Your task to perform on an android device: Do I have any events tomorrow? Image 0: 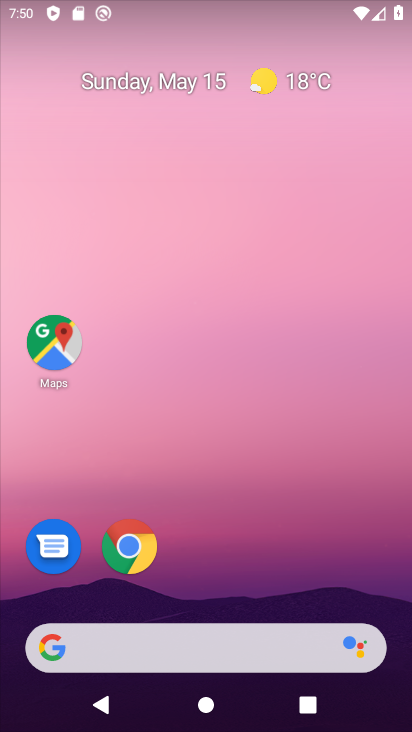
Step 0: drag from (252, 553) to (315, 170)
Your task to perform on an android device: Do I have any events tomorrow? Image 1: 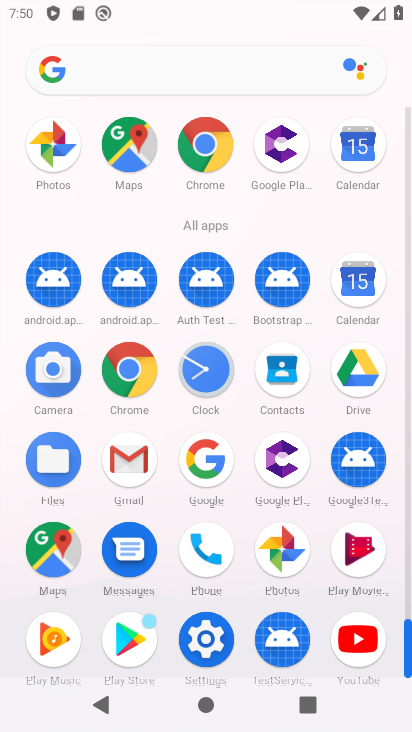
Step 1: click (354, 275)
Your task to perform on an android device: Do I have any events tomorrow? Image 2: 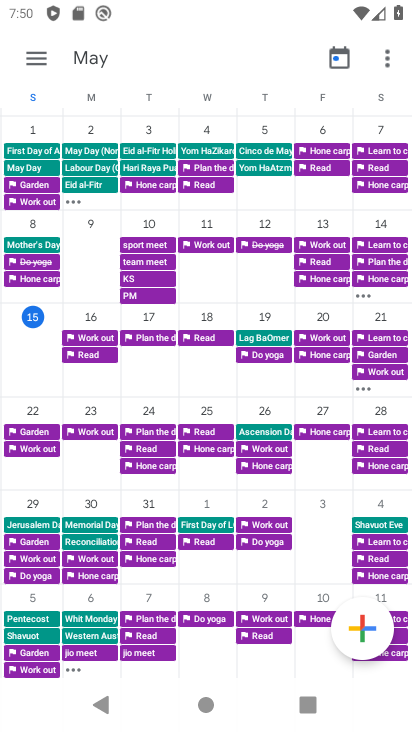
Step 2: click (24, 55)
Your task to perform on an android device: Do I have any events tomorrow? Image 3: 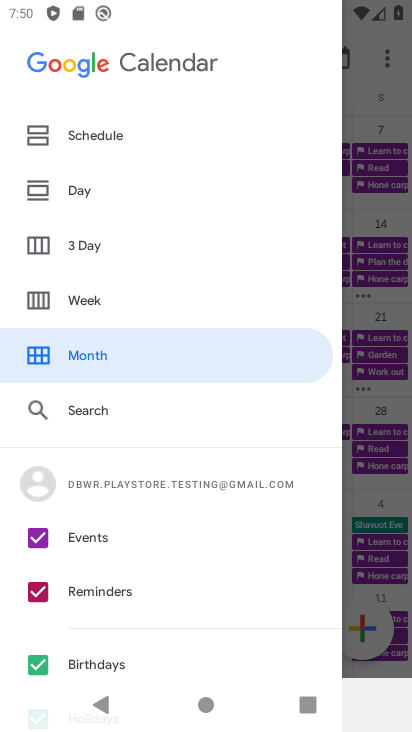
Step 3: click (121, 353)
Your task to perform on an android device: Do I have any events tomorrow? Image 4: 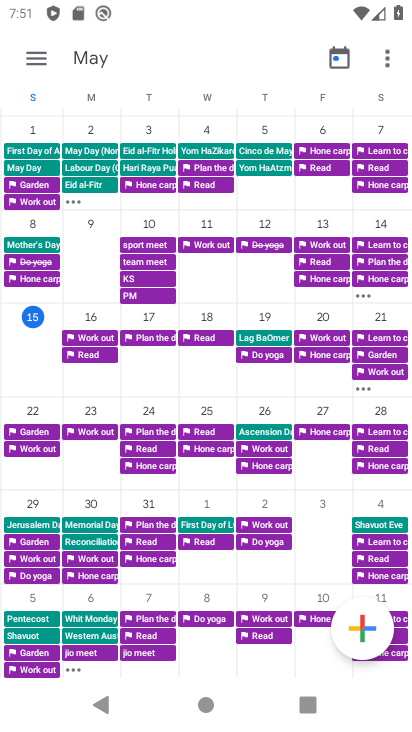
Step 4: task complete